Your task to perform on an android device: Open CNN.com Image 0: 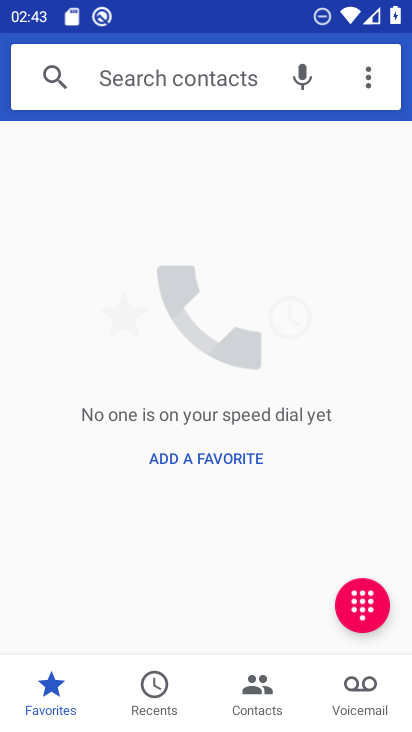
Step 0: press home button
Your task to perform on an android device: Open CNN.com Image 1: 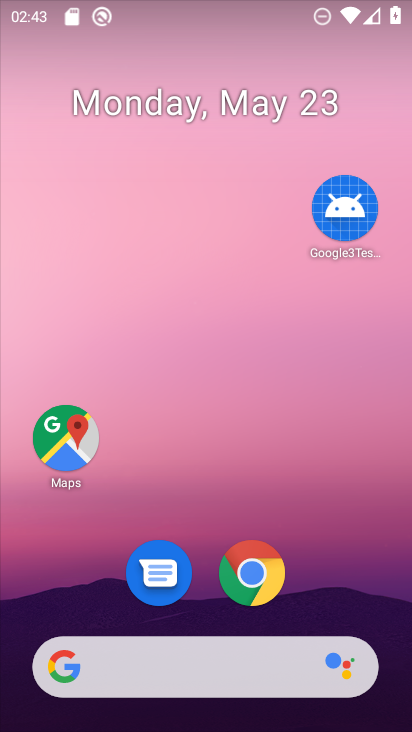
Step 1: click (247, 574)
Your task to perform on an android device: Open CNN.com Image 2: 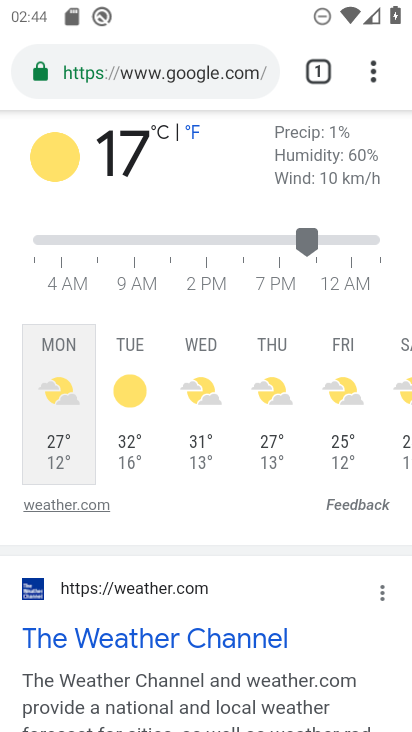
Step 2: click (171, 76)
Your task to perform on an android device: Open CNN.com Image 3: 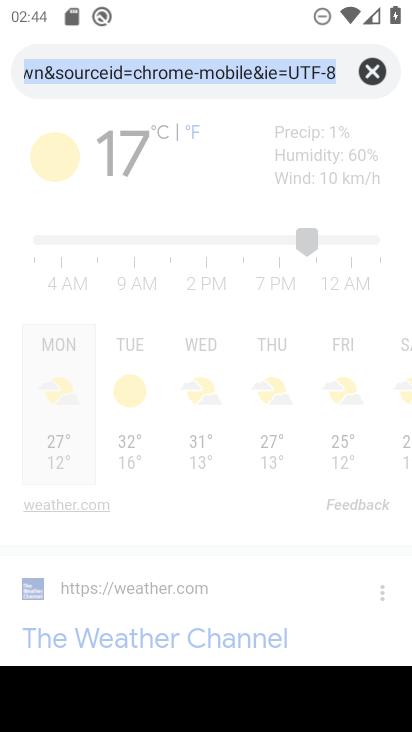
Step 3: type "cnn.com"
Your task to perform on an android device: Open CNN.com Image 4: 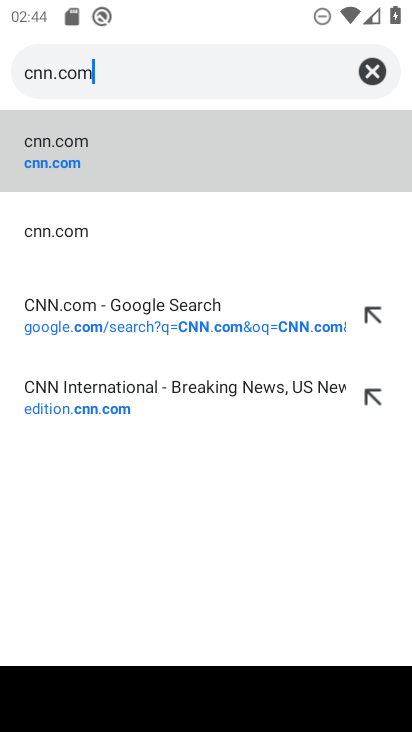
Step 4: click (37, 174)
Your task to perform on an android device: Open CNN.com Image 5: 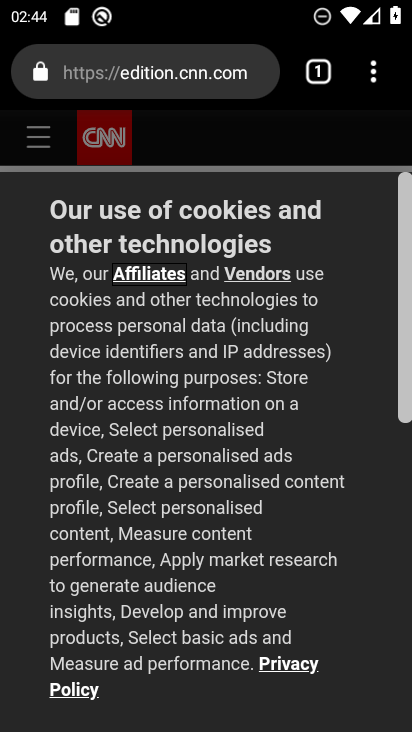
Step 5: task complete